Your task to perform on an android device: change alarm snooze length Image 0: 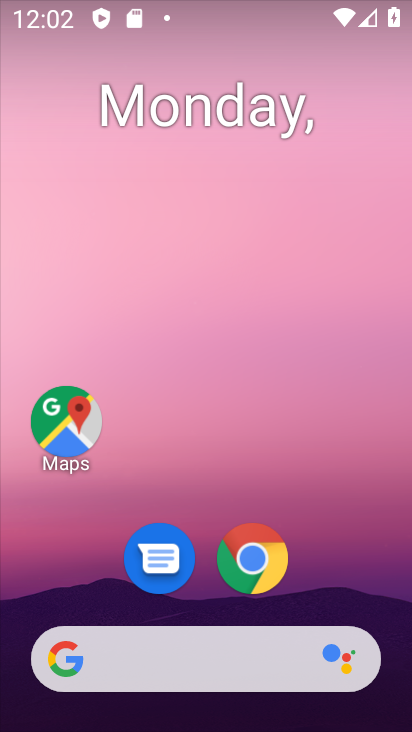
Step 0: drag from (348, 478) to (349, 141)
Your task to perform on an android device: change alarm snooze length Image 1: 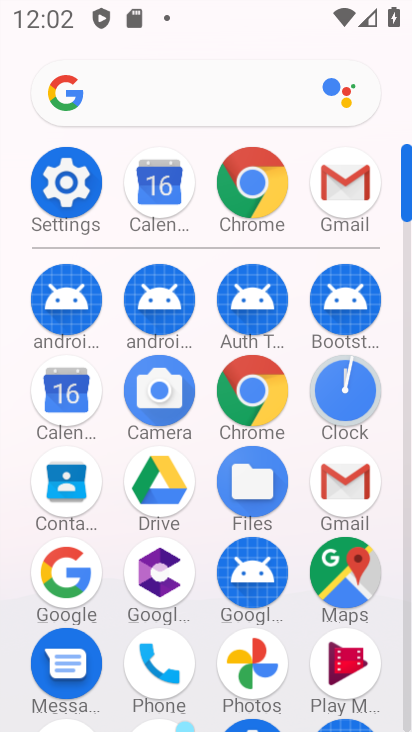
Step 1: click (355, 403)
Your task to perform on an android device: change alarm snooze length Image 2: 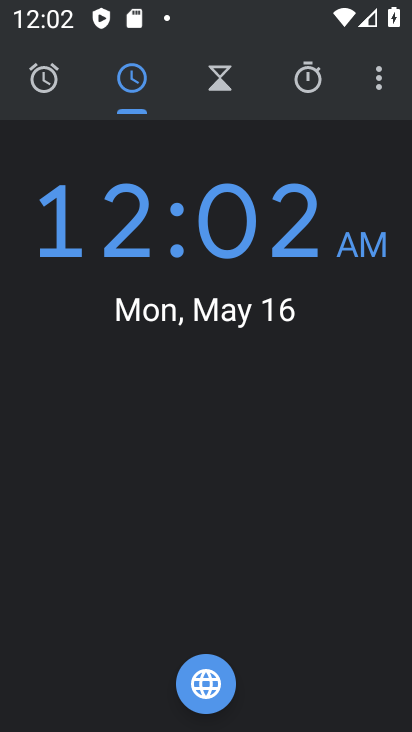
Step 2: click (380, 86)
Your task to perform on an android device: change alarm snooze length Image 3: 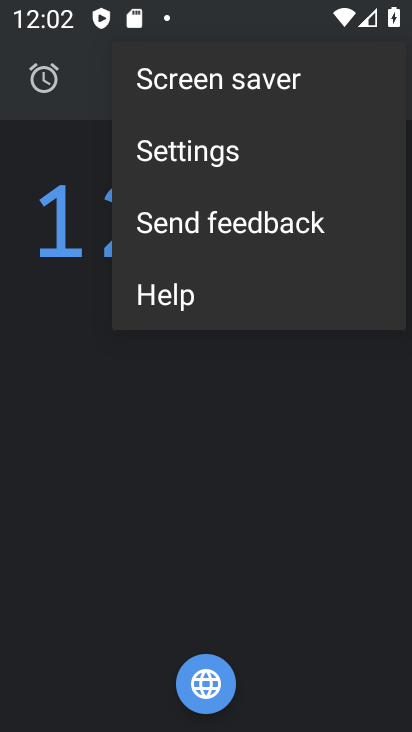
Step 3: click (245, 147)
Your task to perform on an android device: change alarm snooze length Image 4: 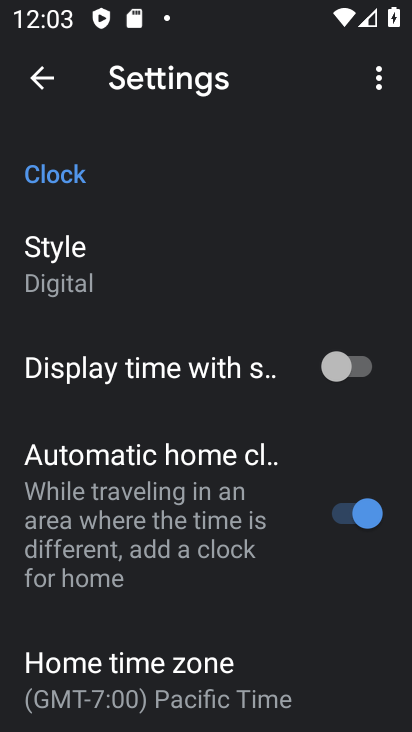
Step 4: drag from (303, 578) to (312, 399)
Your task to perform on an android device: change alarm snooze length Image 5: 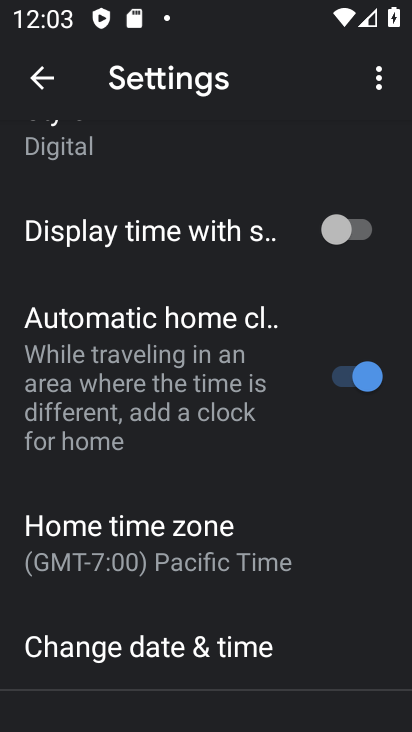
Step 5: drag from (321, 629) to (298, 465)
Your task to perform on an android device: change alarm snooze length Image 6: 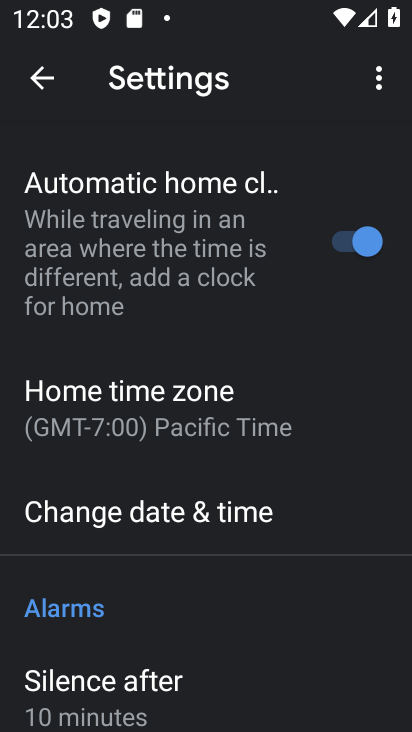
Step 6: drag from (293, 651) to (296, 491)
Your task to perform on an android device: change alarm snooze length Image 7: 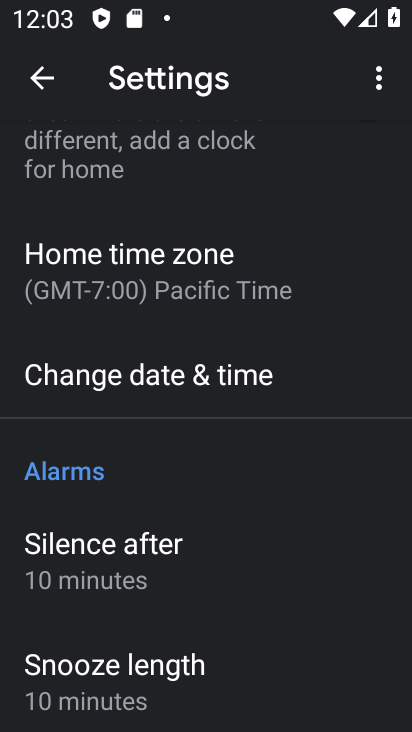
Step 7: drag from (280, 662) to (290, 484)
Your task to perform on an android device: change alarm snooze length Image 8: 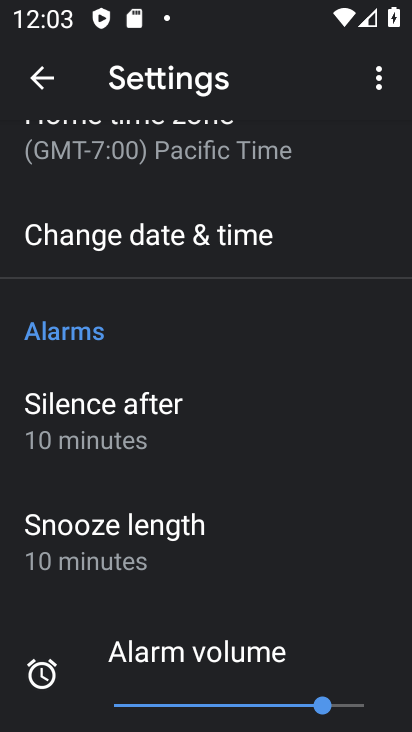
Step 8: drag from (319, 639) to (316, 424)
Your task to perform on an android device: change alarm snooze length Image 9: 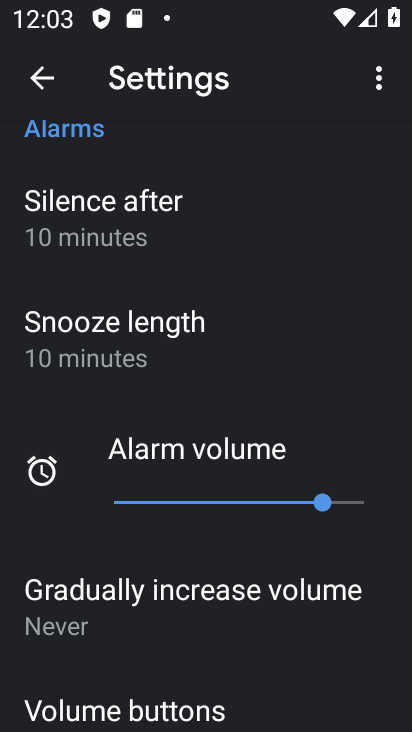
Step 9: click (128, 363)
Your task to perform on an android device: change alarm snooze length Image 10: 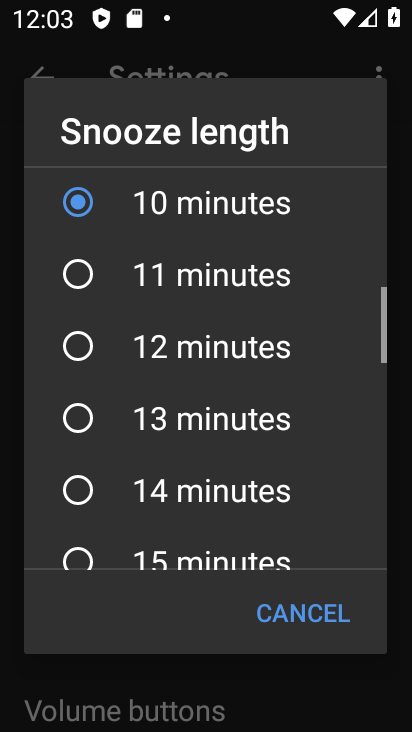
Step 10: click (168, 352)
Your task to perform on an android device: change alarm snooze length Image 11: 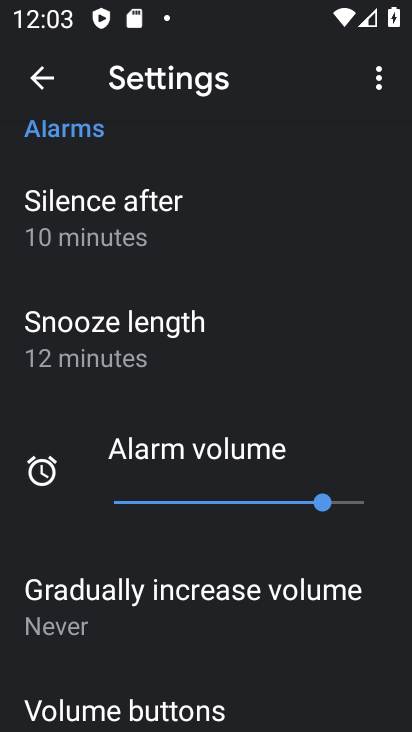
Step 11: task complete